Your task to perform on an android device: move an email to a new category in the gmail app Image 0: 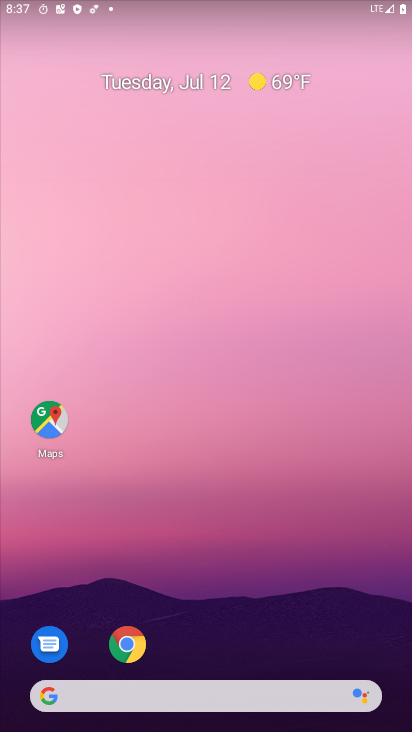
Step 0: drag from (214, 660) to (220, 64)
Your task to perform on an android device: move an email to a new category in the gmail app Image 1: 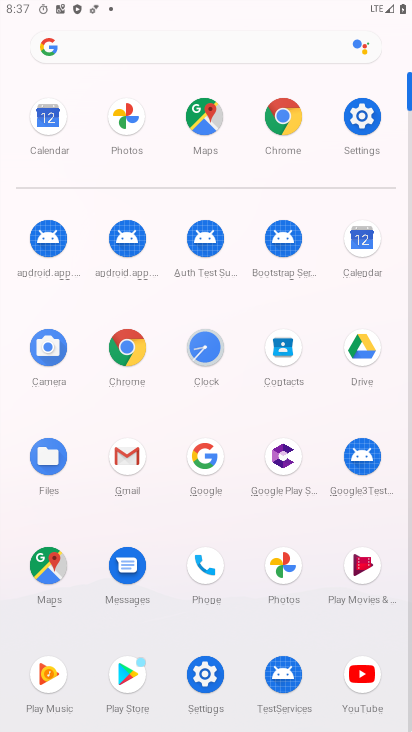
Step 1: click (124, 453)
Your task to perform on an android device: move an email to a new category in the gmail app Image 2: 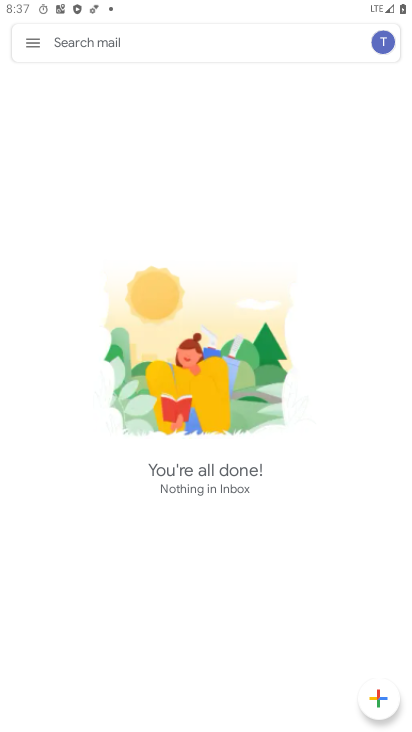
Step 2: task complete